Your task to perform on an android device: remove spam from my inbox in the gmail app Image 0: 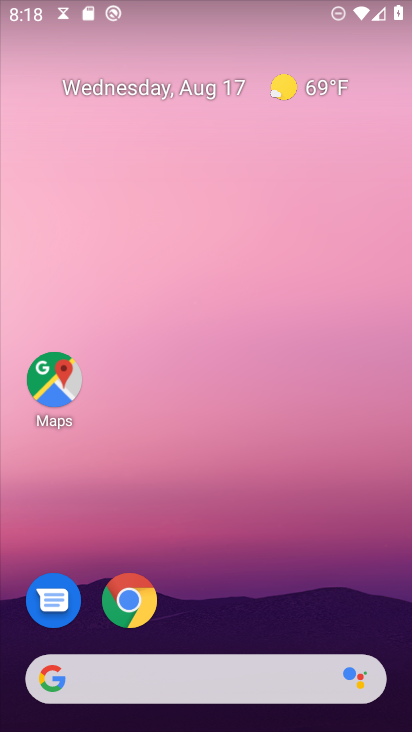
Step 0: press home button
Your task to perform on an android device: remove spam from my inbox in the gmail app Image 1: 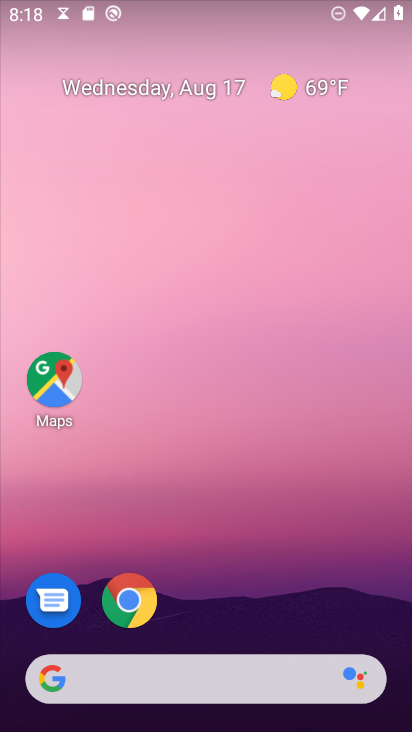
Step 1: drag from (253, 629) to (221, 117)
Your task to perform on an android device: remove spam from my inbox in the gmail app Image 2: 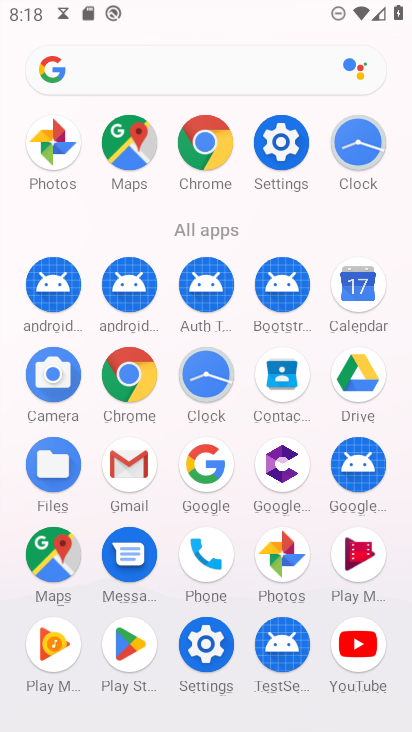
Step 2: click (125, 457)
Your task to perform on an android device: remove spam from my inbox in the gmail app Image 3: 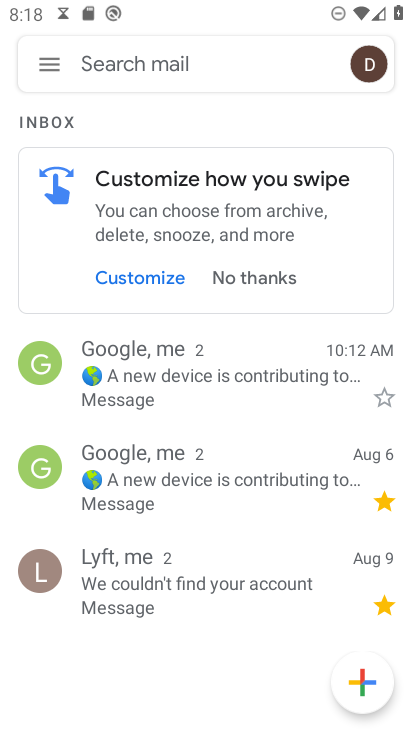
Step 3: click (161, 373)
Your task to perform on an android device: remove spam from my inbox in the gmail app Image 4: 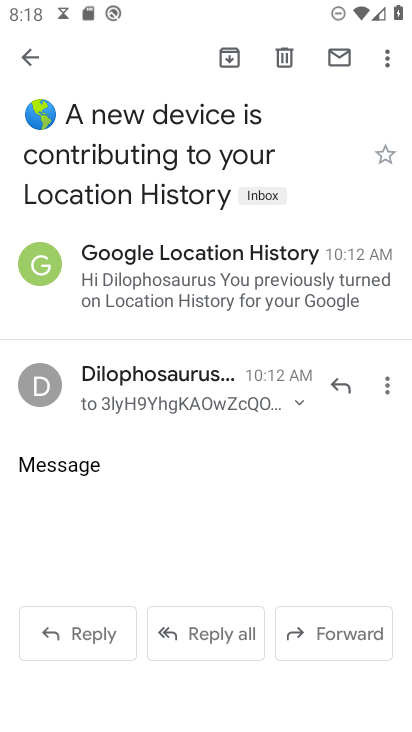
Step 4: click (383, 56)
Your task to perform on an android device: remove spam from my inbox in the gmail app Image 5: 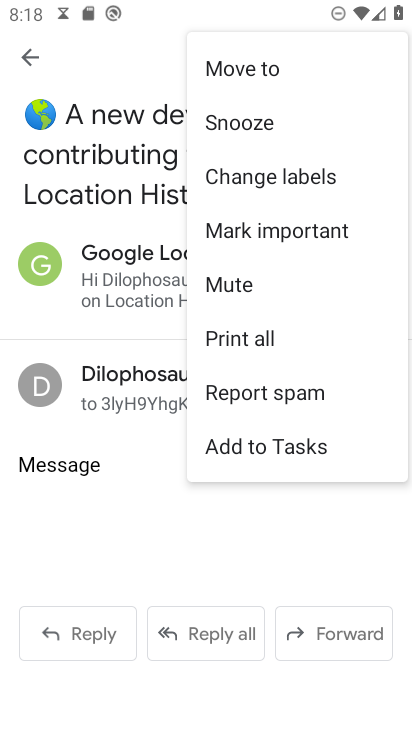
Step 5: click (258, 395)
Your task to perform on an android device: remove spam from my inbox in the gmail app Image 6: 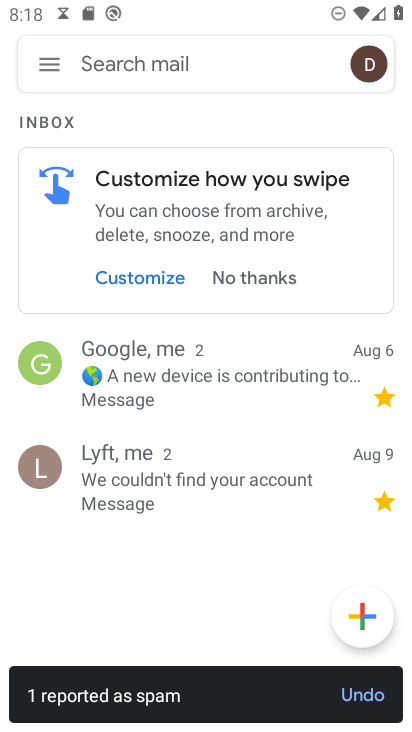
Step 6: click (263, 276)
Your task to perform on an android device: remove spam from my inbox in the gmail app Image 7: 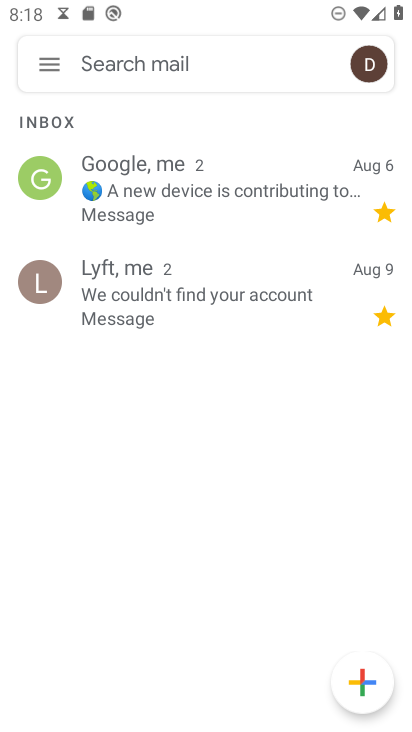
Step 7: task complete